Your task to perform on an android device: open a bookmark in the chrome app Image 0: 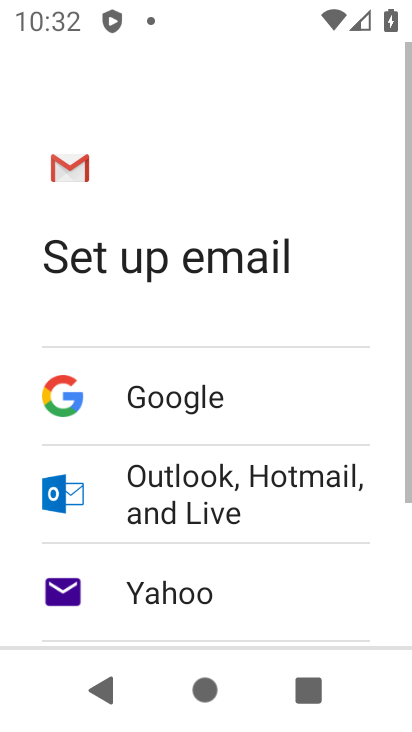
Step 0: press home button
Your task to perform on an android device: open a bookmark in the chrome app Image 1: 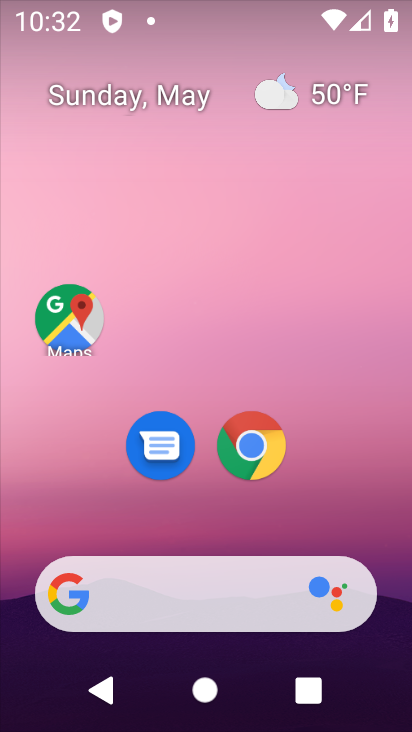
Step 1: click (268, 438)
Your task to perform on an android device: open a bookmark in the chrome app Image 2: 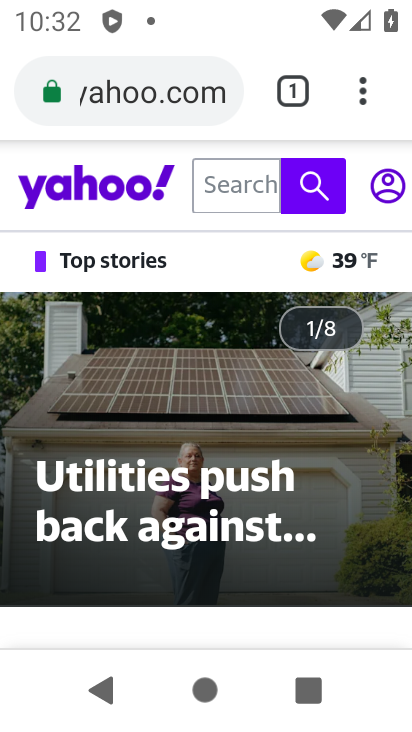
Step 2: click (353, 95)
Your task to perform on an android device: open a bookmark in the chrome app Image 3: 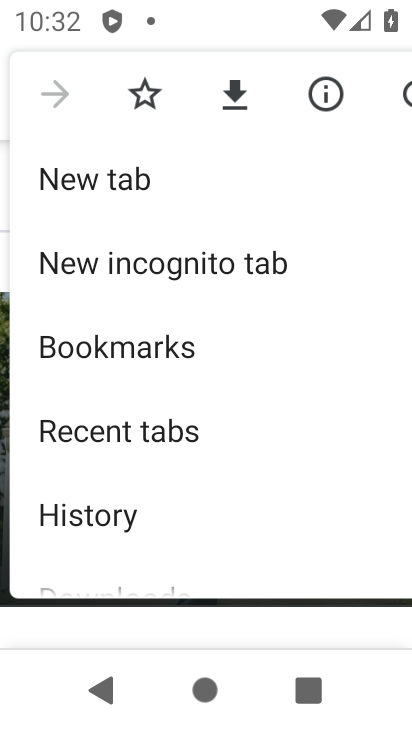
Step 3: click (170, 357)
Your task to perform on an android device: open a bookmark in the chrome app Image 4: 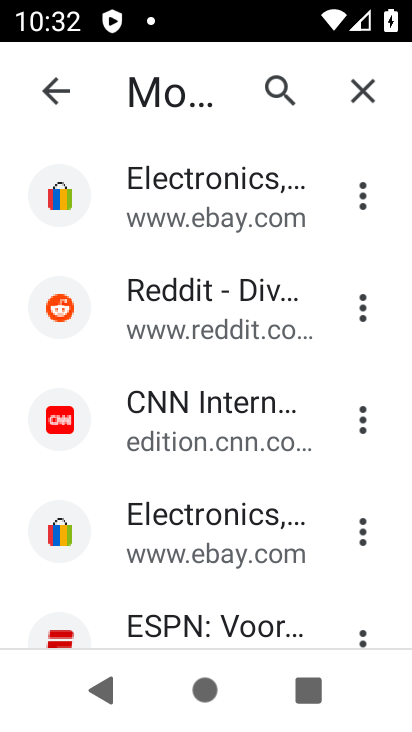
Step 4: click (210, 536)
Your task to perform on an android device: open a bookmark in the chrome app Image 5: 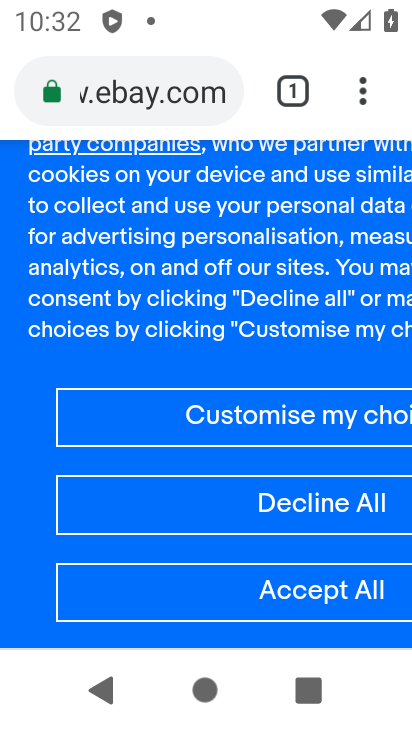
Step 5: task complete